Your task to perform on an android device: Open Google Maps and go to "Timeline" Image 0: 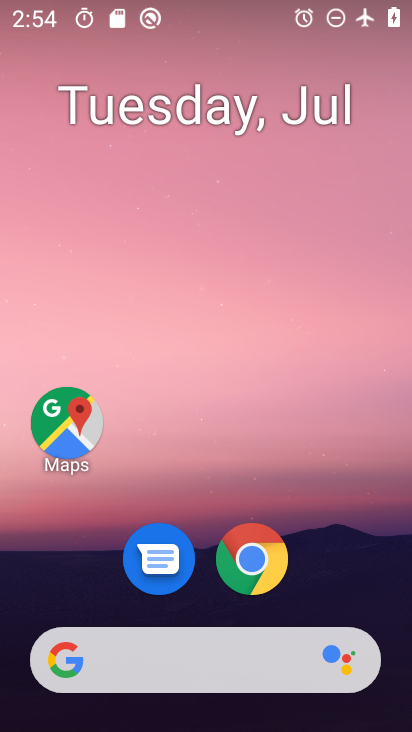
Step 0: press home button
Your task to perform on an android device: Open Google Maps and go to "Timeline" Image 1: 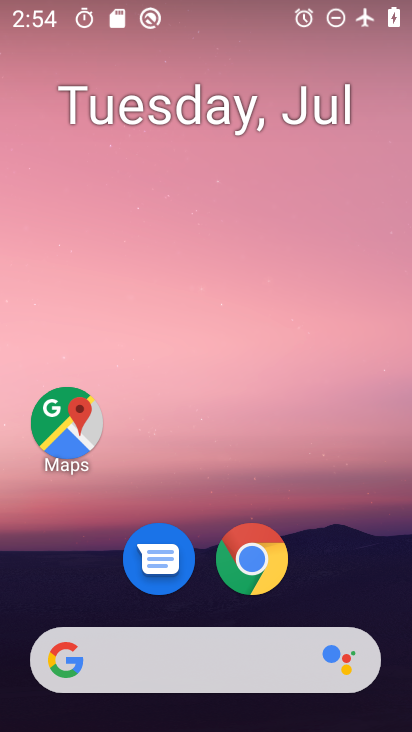
Step 1: drag from (362, 590) to (380, 115)
Your task to perform on an android device: Open Google Maps and go to "Timeline" Image 2: 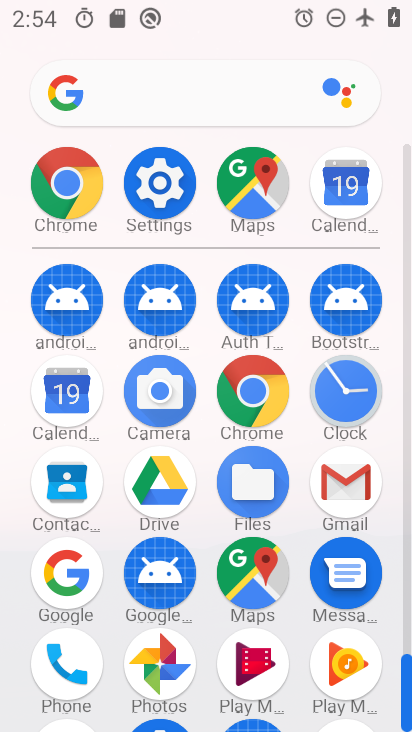
Step 2: click (252, 194)
Your task to perform on an android device: Open Google Maps and go to "Timeline" Image 3: 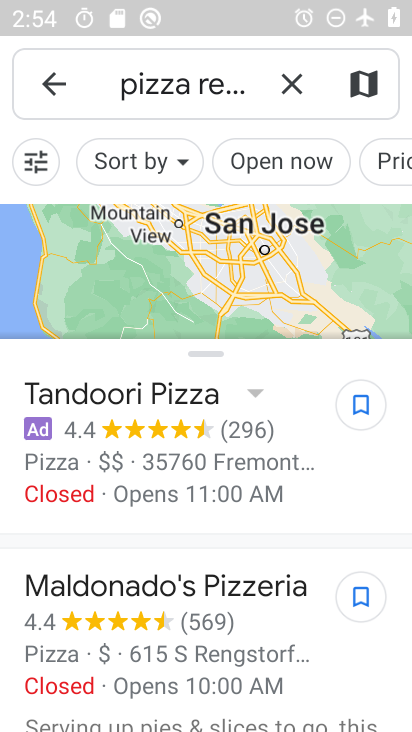
Step 3: press back button
Your task to perform on an android device: Open Google Maps and go to "Timeline" Image 4: 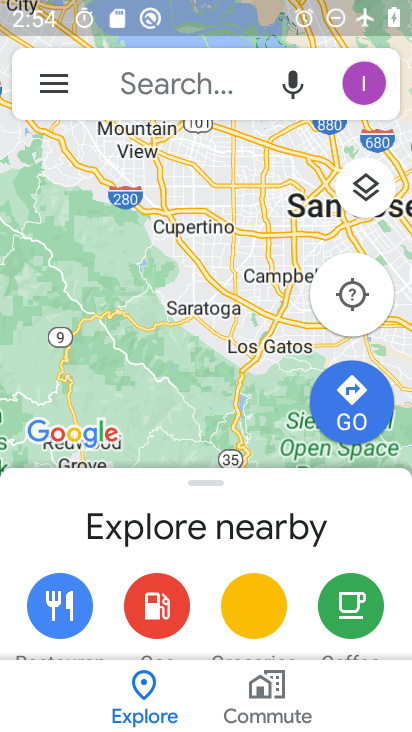
Step 4: click (54, 78)
Your task to perform on an android device: Open Google Maps and go to "Timeline" Image 5: 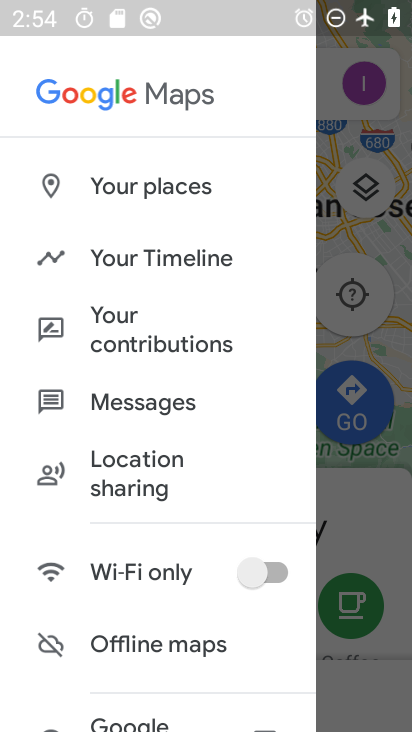
Step 5: click (196, 254)
Your task to perform on an android device: Open Google Maps and go to "Timeline" Image 6: 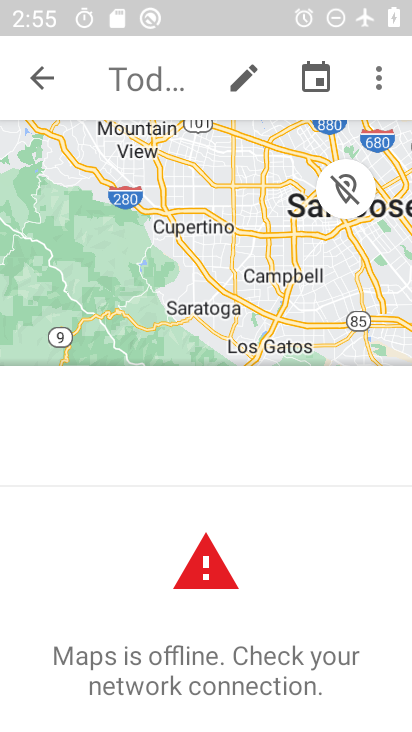
Step 6: task complete